Your task to perform on an android device: Go to Android settings Image 0: 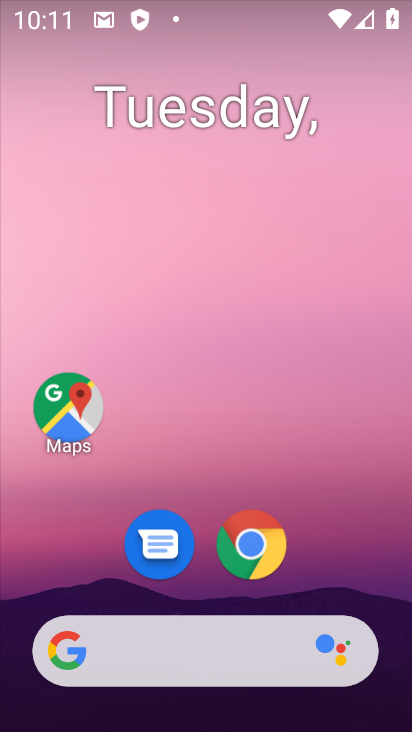
Step 0: drag from (392, 569) to (251, 97)
Your task to perform on an android device: Go to Android settings Image 1: 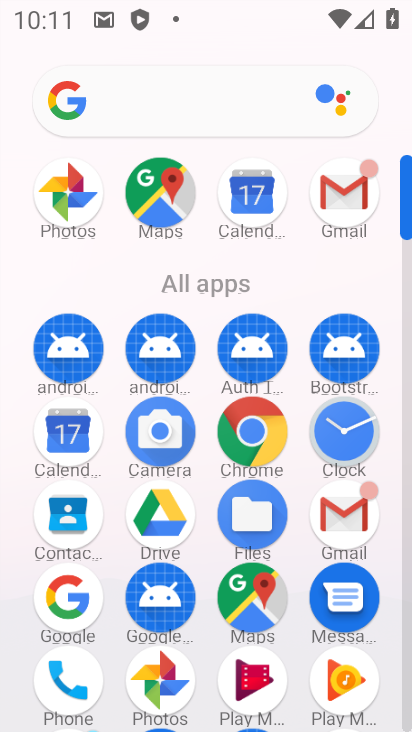
Step 1: click (409, 647)
Your task to perform on an android device: Go to Android settings Image 2: 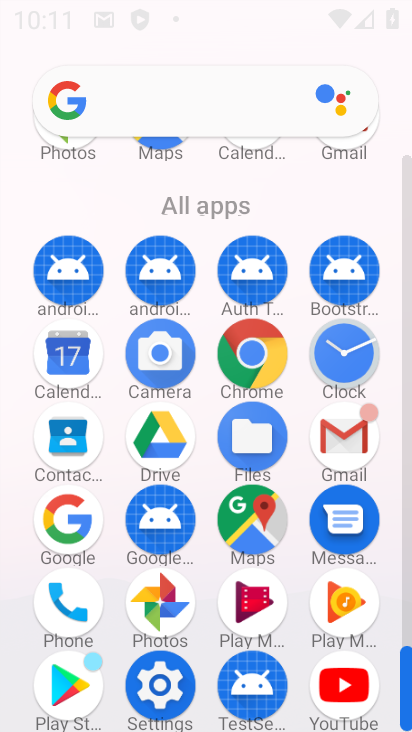
Step 2: click (163, 668)
Your task to perform on an android device: Go to Android settings Image 3: 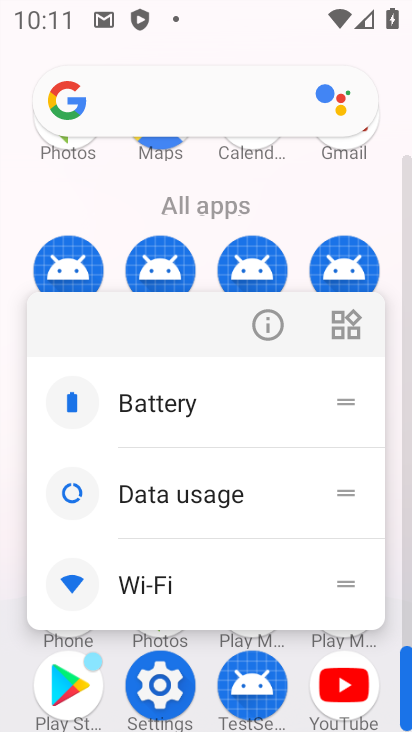
Step 3: click (176, 685)
Your task to perform on an android device: Go to Android settings Image 4: 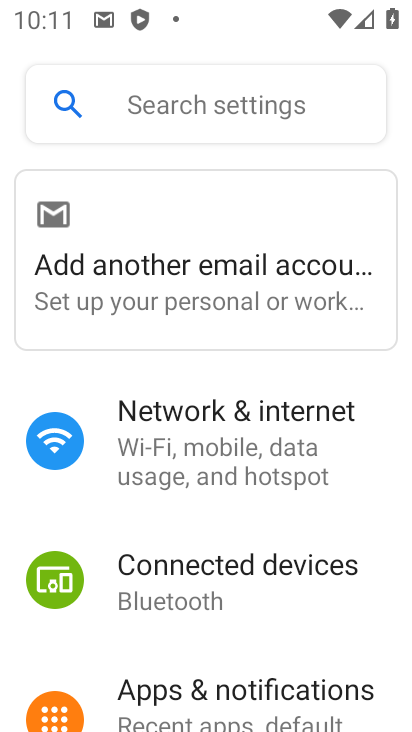
Step 4: task complete